Your task to perform on an android device: turn off location Image 0: 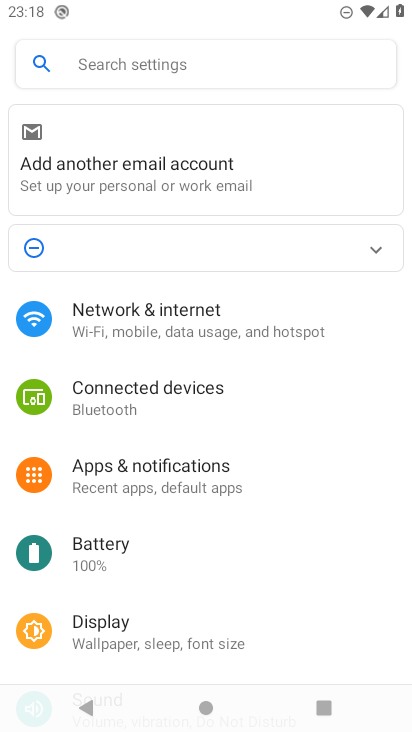
Step 0: press home button
Your task to perform on an android device: turn off location Image 1: 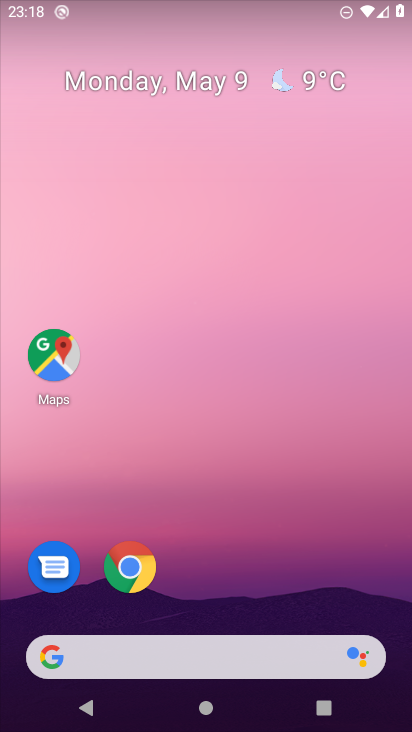
Step 1: drag from (218, 609) to (202, 34)
Your task to perform on an android device: turn off location Image 2: 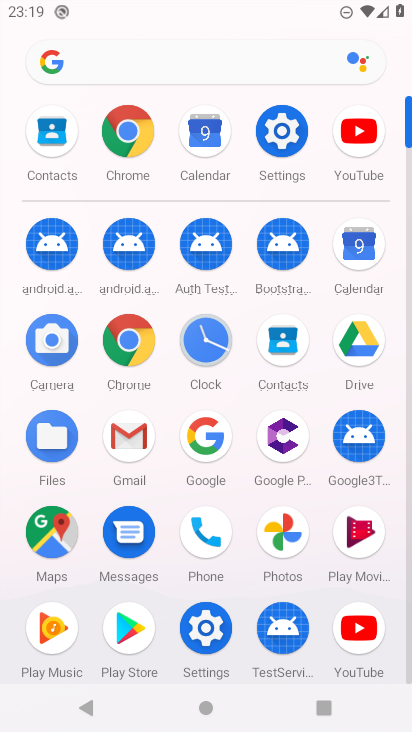
Step 2: click (207, 621)
Your task to perform on an android device: turn off location Image 3: 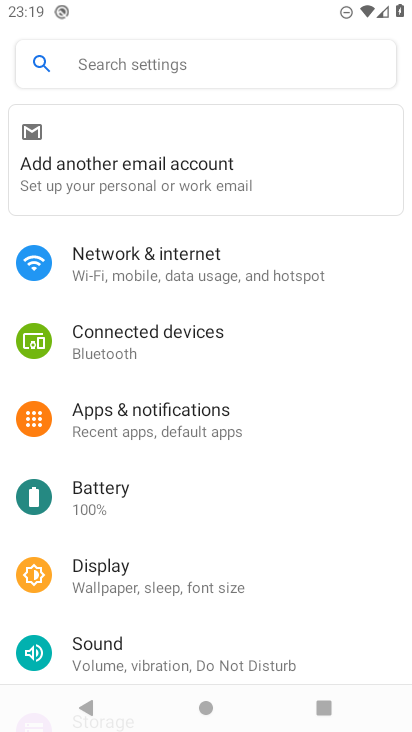
Step 3: drag from (161, 640) to (158, 318)
Your task to perform on an android device: turn off location Image 4: 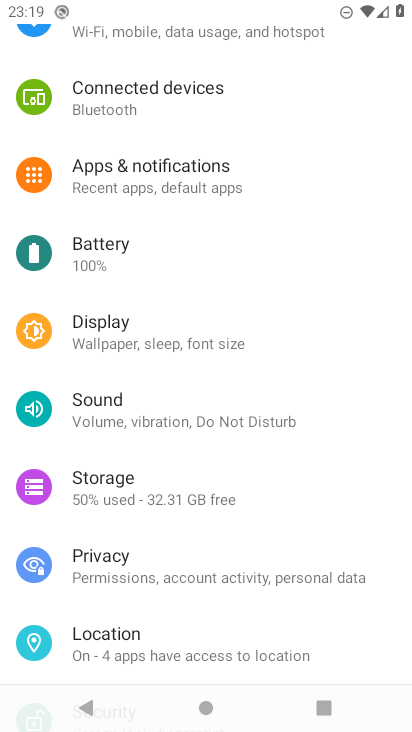
Step 4: drag from (158, 228) to (158, 183)
Your task to perform on an android device: turn off location Image 5: 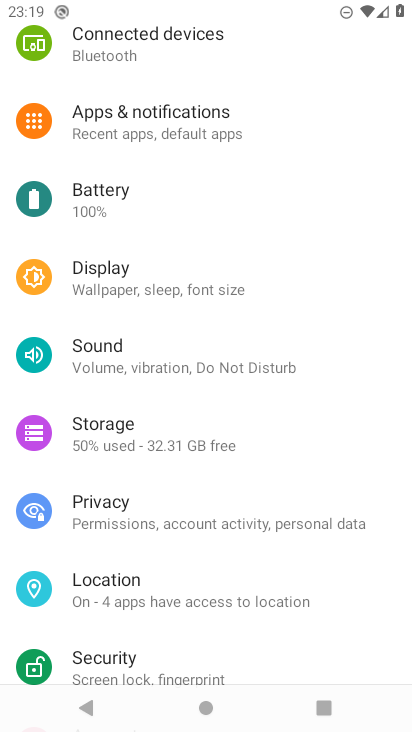
Step 5: click (149, 576)
Your task to perform on an android device: turn off location Image 6: 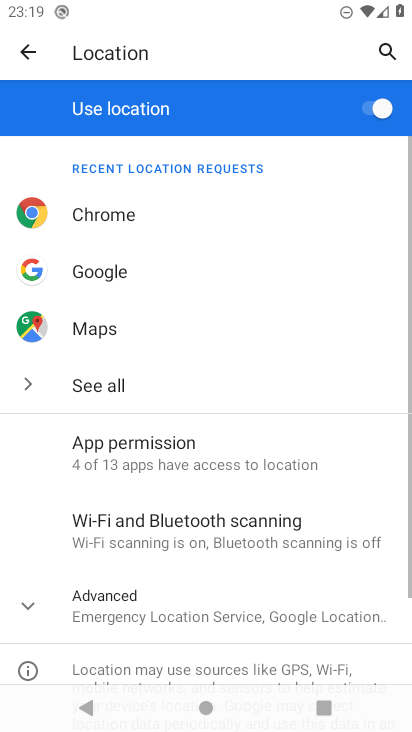
Step 6: click (370, 106)
Your task to perform on an android device: turn off location Image 7: 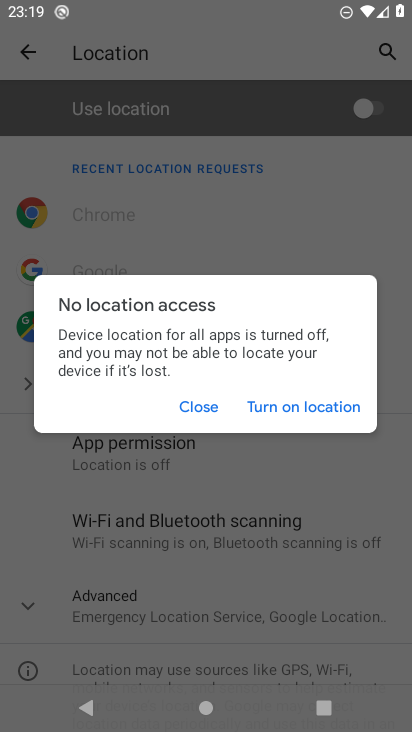
Step 7: task complete